Your task to perform on an android device: Open calendar and show me the first week of next month Image 0: 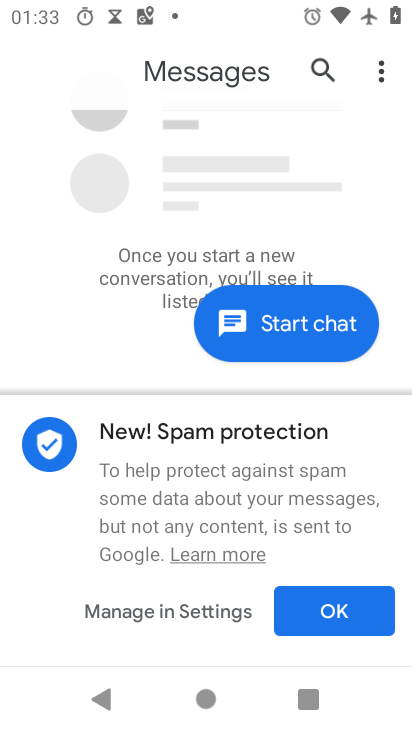
Step 0: press home button
Your task to perform on an android device: Open calendar and show me the first week of next month Image 1: 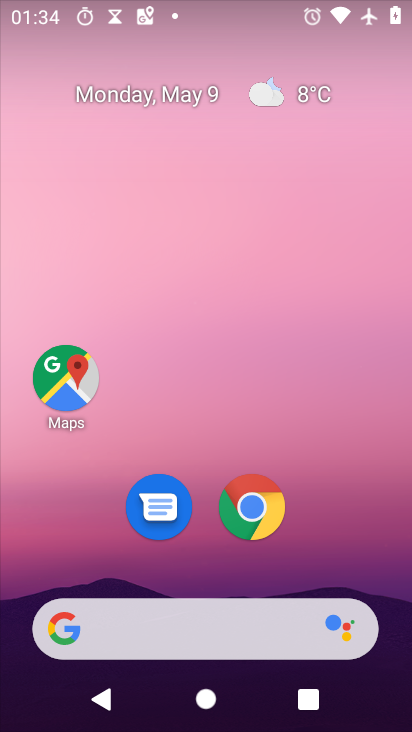
Step 1: drag from (226, 721) to (233, 202)
Your task to perform on an android device: Open calendar and show me the first week of next month Image 2: 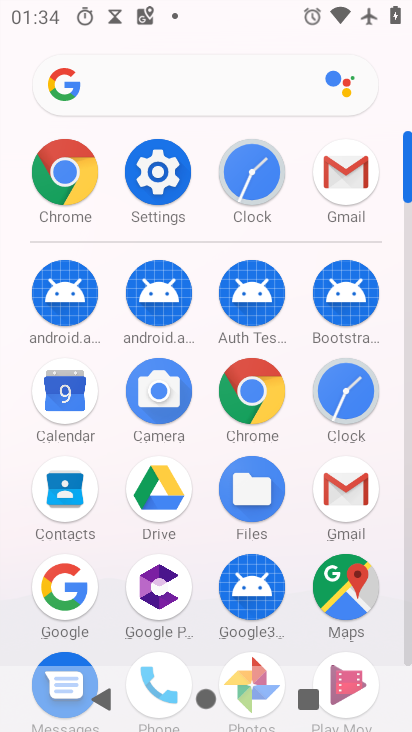
Step 2: click (60, 408)
Your task to perform on an android device: Open calendar and show me the first week of next month Image 3: 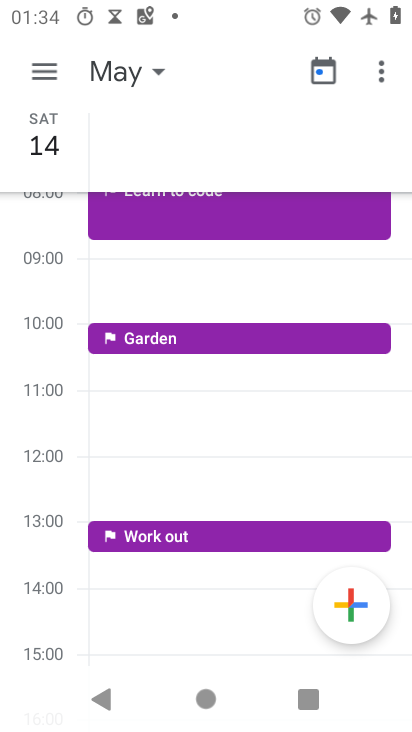
Step 3: click (119, 64)
Your task to perform on an android device: Open calendar and show me the first week of next month Image 4: 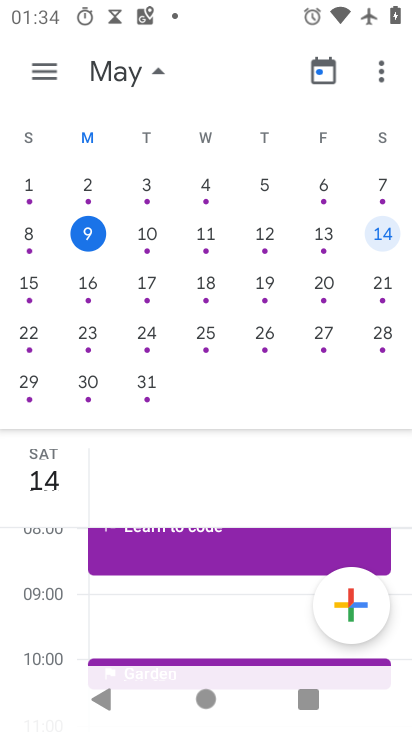
Step 4: click (33, 248)
Your task to perform on an android device: Open calendar and show me the first week of next month Image 5: 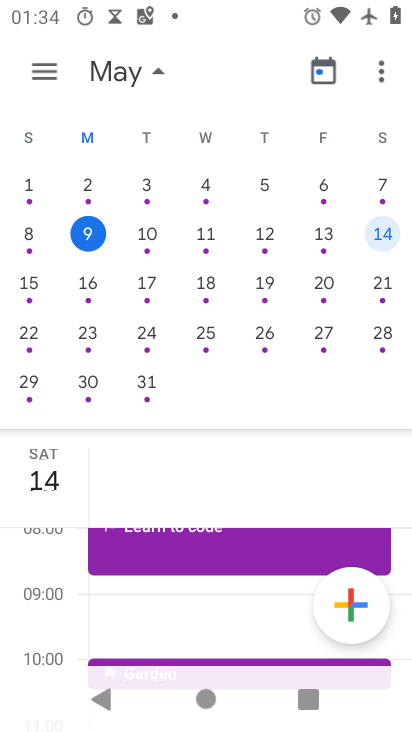
Step 5: drag from (372, 240) to (9, 251)
Your task to perform on an android device: Open calendar and show me the first week of next month Image 6: 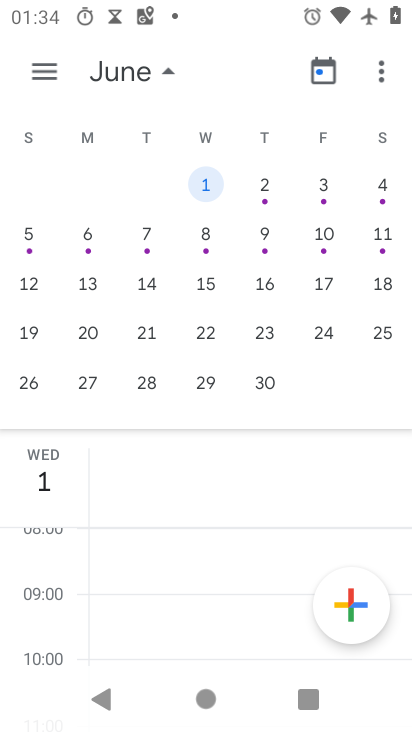
Step 6: click (90, 228)
Your task to perform on an android device: Open calendar and show me the first week of next month Image 7: 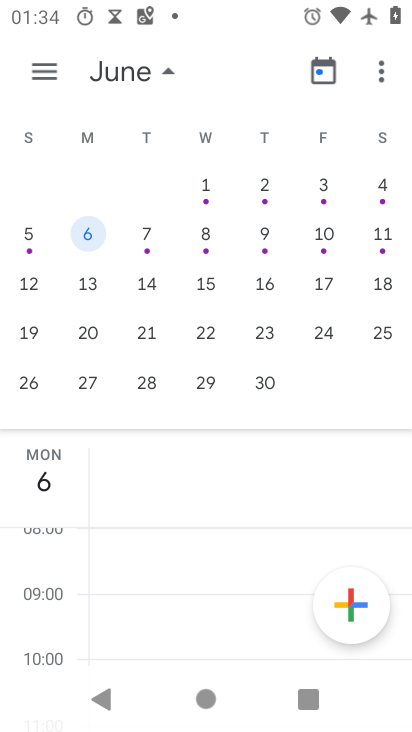
Step 7: task complete